Your task to perform on an android device: Open the map Image 0: 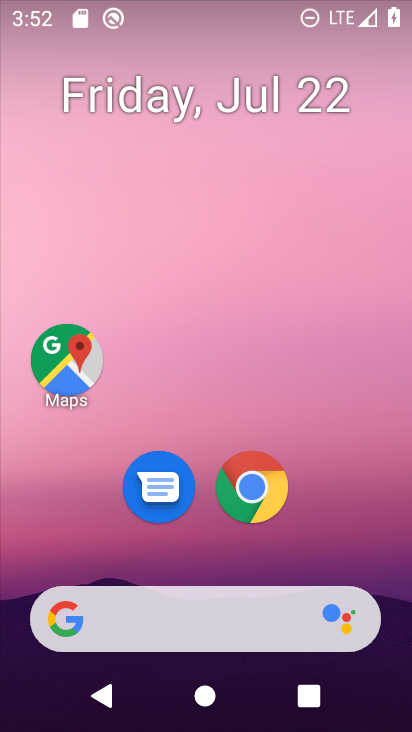
Step 0: click (55, 363)
Your task to perform on an android device: Open the map Image 1: 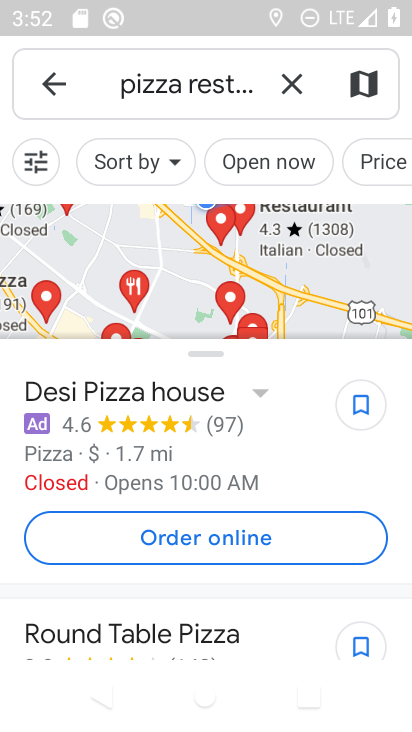
Step 1: task complete